Your task to perform on an android device: Open battery settings Image 0: 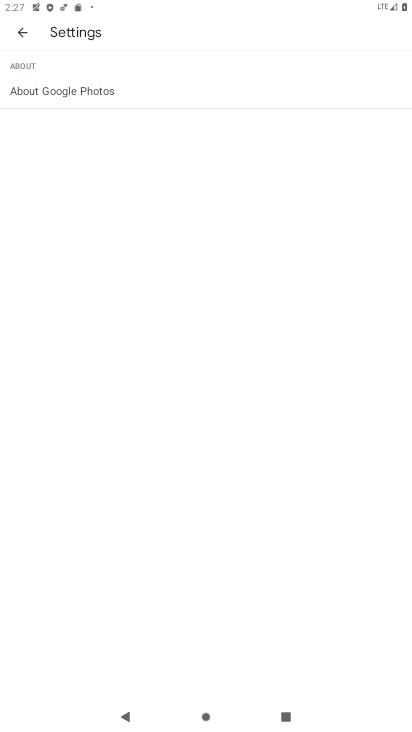
Step 0: press home button
Your task to perform on an android device: Open battery settings Image 1: 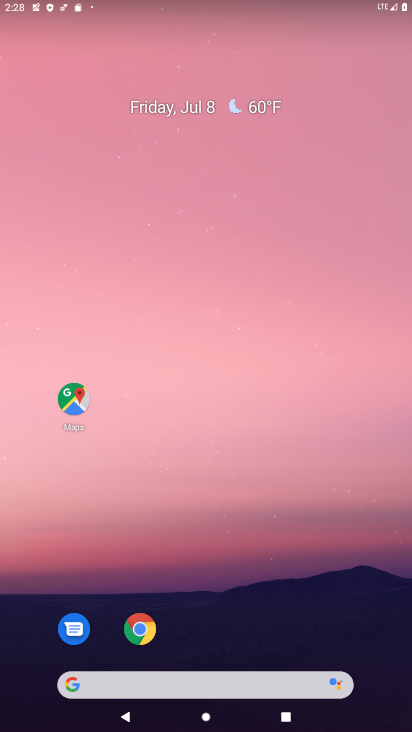
Step 1: drag from (207, 651) to (258, 107)
Your task to perform on an android device: Open battery settings Image 2: 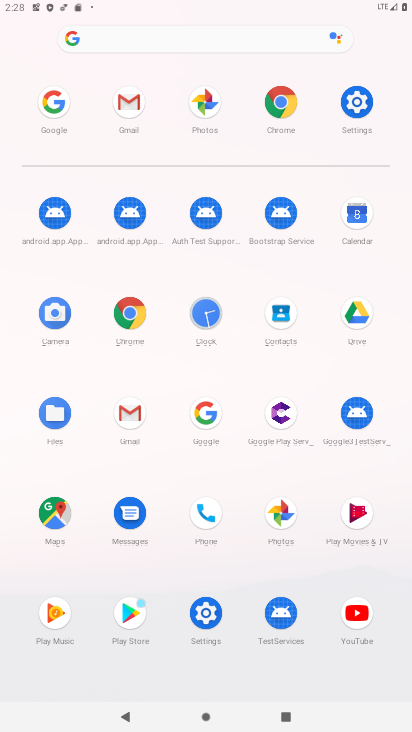
Step 2: click (355, 118)
Your task to perform on an android device: Open battery settings Image 3: 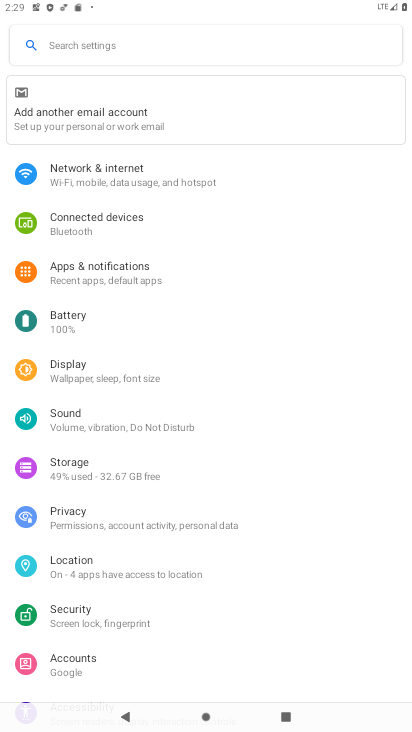
Step 3: click (89, 319)
Your task to perform on an android device: Open battery settings Image 4: 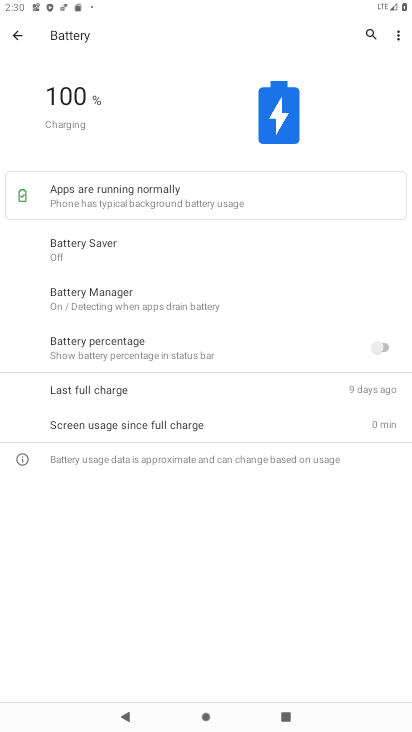
Step 4: task complete